Your task to perform on an android device: toggle show notifications on the lock screen Image 0: 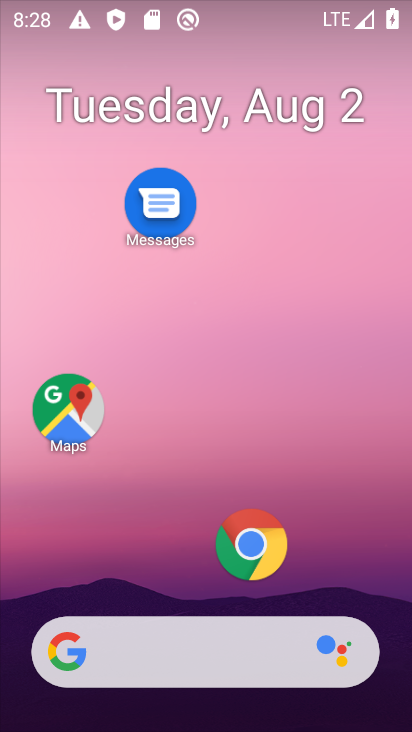
Step 0: drag from (185, 589) to (187, 158)
Your task to perform on an android device: toggle show notifications on the lock screen Image 1: 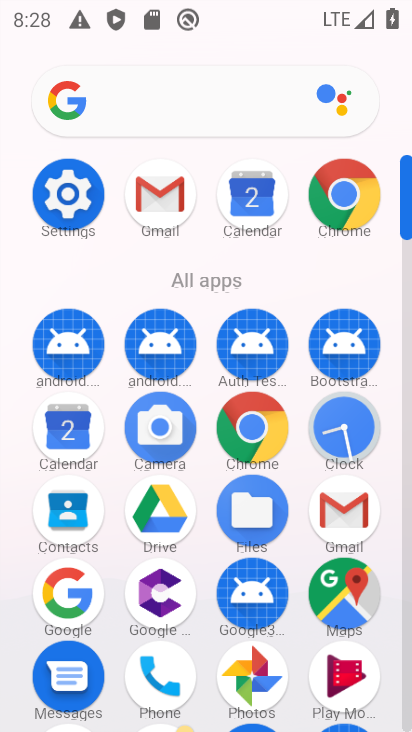
Step 1: click (98, 180)
Your task to perform on an android device: toggle show notifications on the lock screen Image 2: 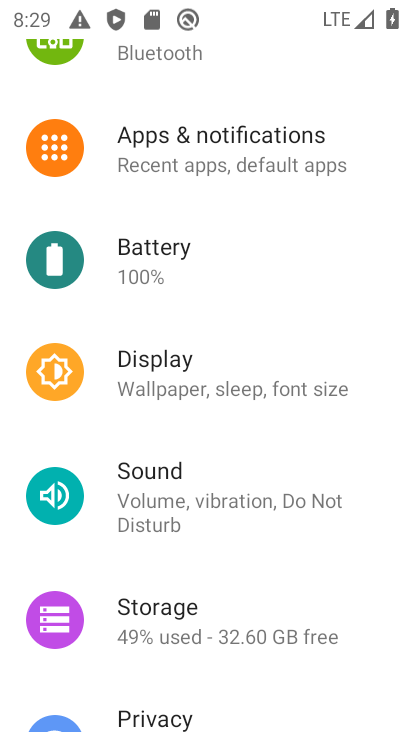
Step 2: drag from (243, 263) to (269, 549)
Your task to perform on an android device: toggle show notifications on the lock screen Image 3: 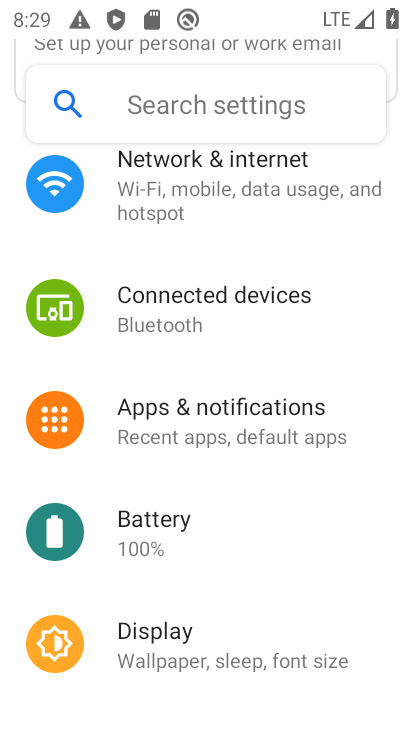
Step 3: click (261, 421)
Your task to perform on an android device: toggle show notifications on the lock screen Image 4: 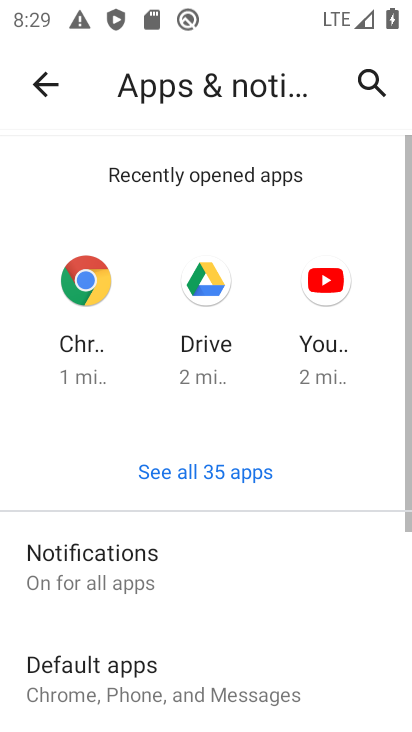
Step 4: click (160, 576)
Your task to perform on an android device: toggle show notifications on the lock screen Image 5: 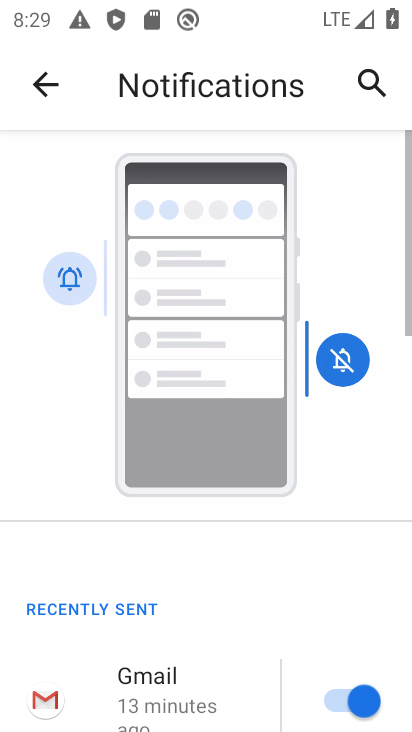
Step 5: drag from (202, 622) to (238, 154)
Your task to perform on an android device: toggle show notifications on the lock screen Image 6: 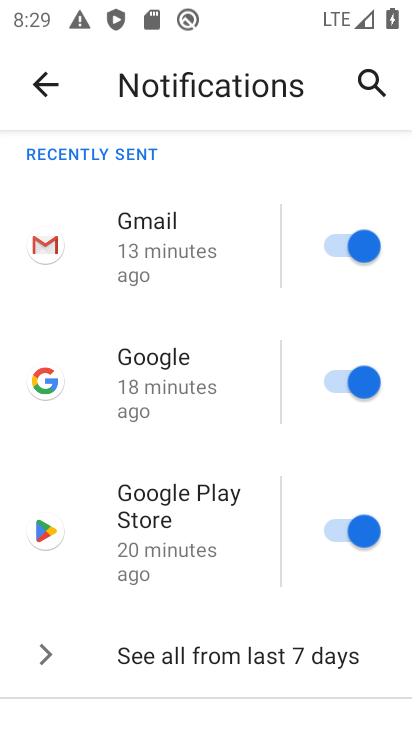
Step 6: drag from (238, 634) to (224, 116)
Your task to perform on an android device: toggle show notifications on the lock screen Image 7: 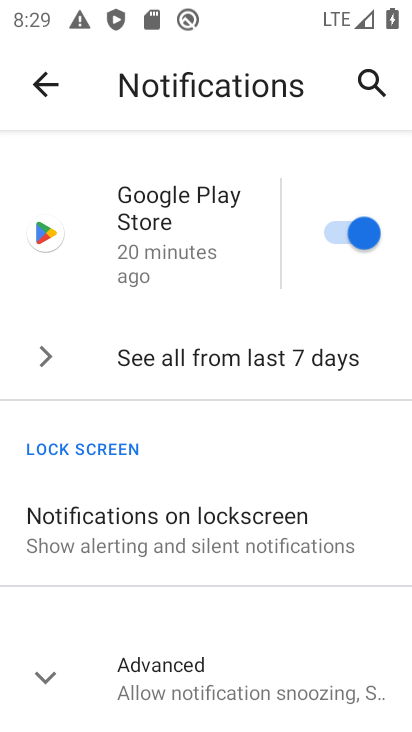
Step 7: click (226, 543)
Your task to perform on an android device: toggle show notifications on the lock screen Image 8: 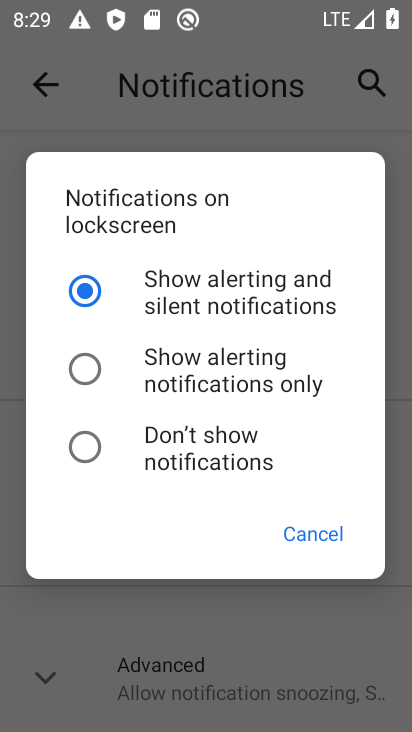
Step 8: click (201, 465)
Your task to perform on an android device: toggle show notifications on the lock screen Image 9: 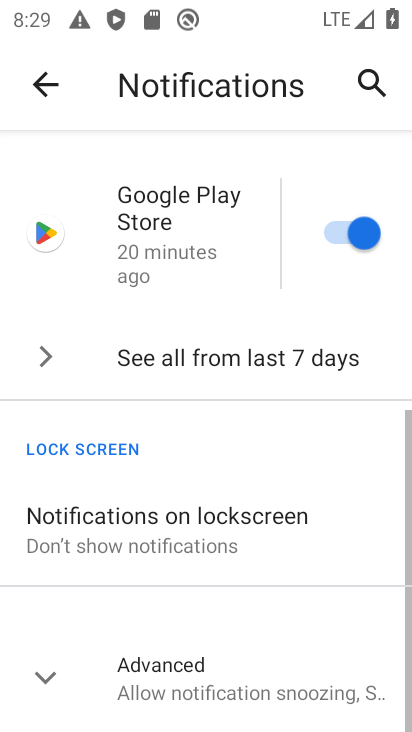
Step 9: task complete